Your task to perform on an android device: open chrome and create a bookmark for the current page Image 0: 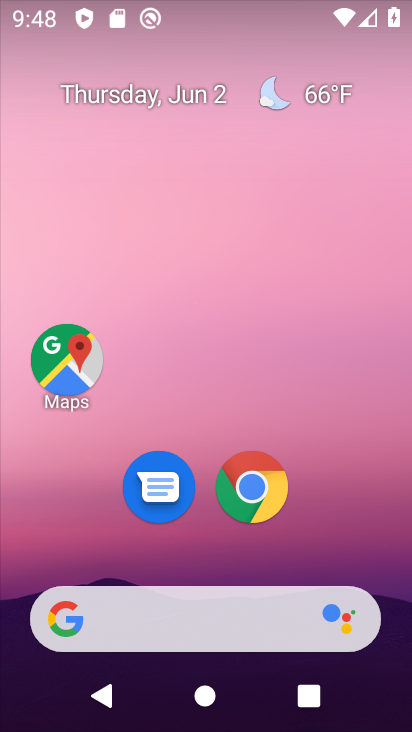
Step 0: click (250, 488)
Your task to perform on an android device: open chrome and create a bookmark for the current page Image 1: 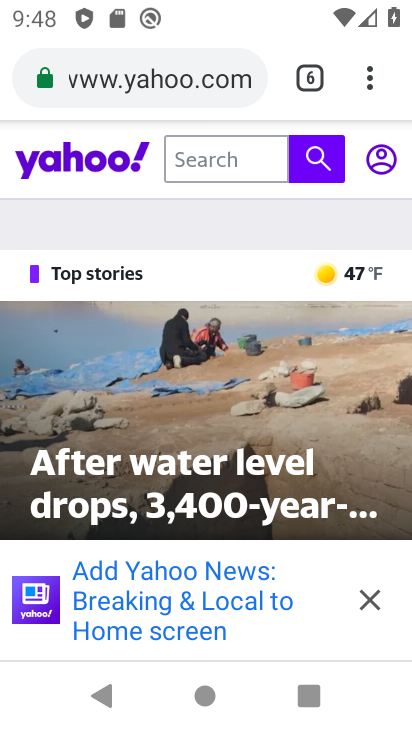
Step 1: click (369, 84)
Your task to perform on an android device: open chrome and create a bookmark for the current page Image 2: 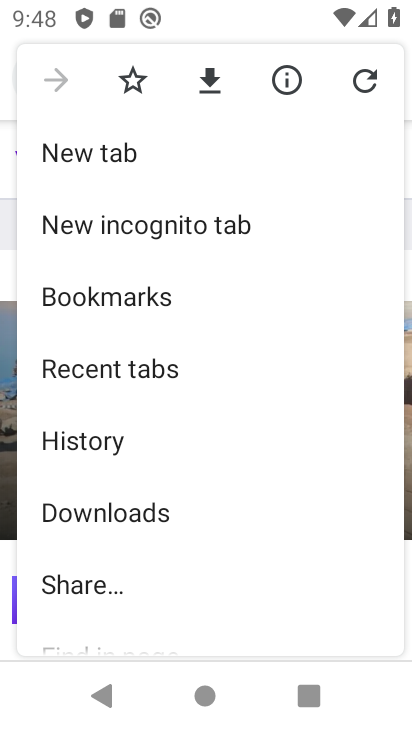
Step 2: click (131, 78)
Your task to perform on an android device: open chrome and create a bookmark for the current page Image 3: 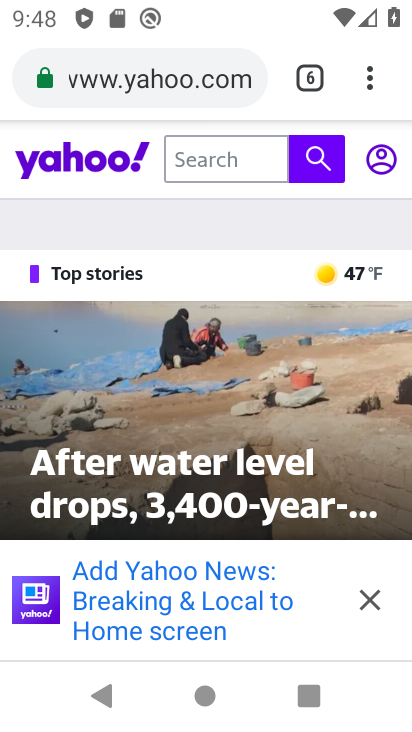
Step 3: task complete